Your task to perform on an android device: check google app version Image 0: 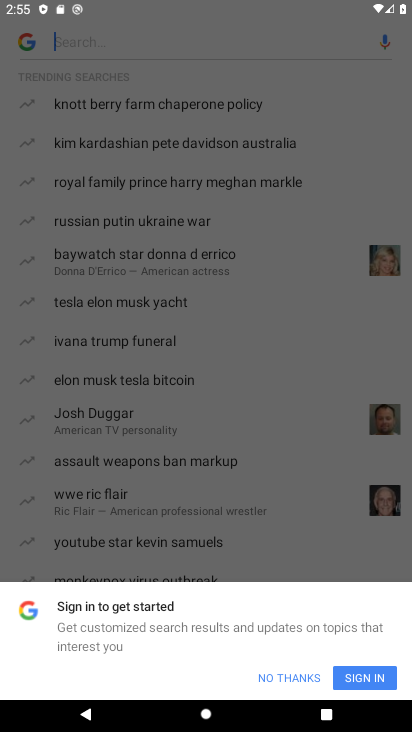
Step 0: press home button
Your task to perform on an android device: check google app version Image 1: 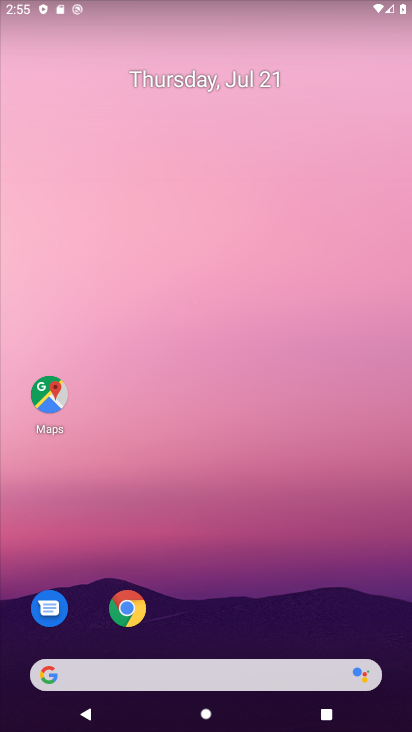
Step 1: drag from (355, 612) to (287, 93)
Your task to perform on an android device: check google app version Image 2: 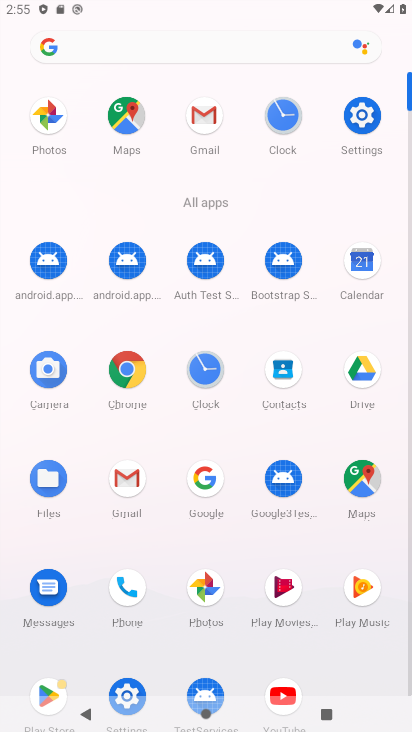
Step 2: click (121, 357)
Your task to perform on an android device: check google app version Image 3: 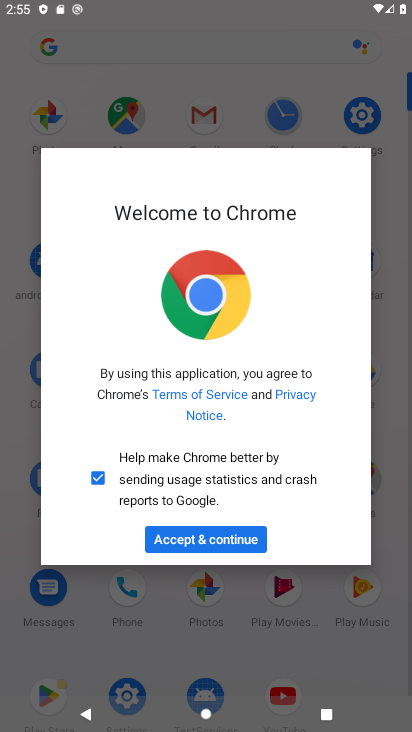
Step 3: click (221, 534)
Your task to perform on an android device: check google app version Image 4: 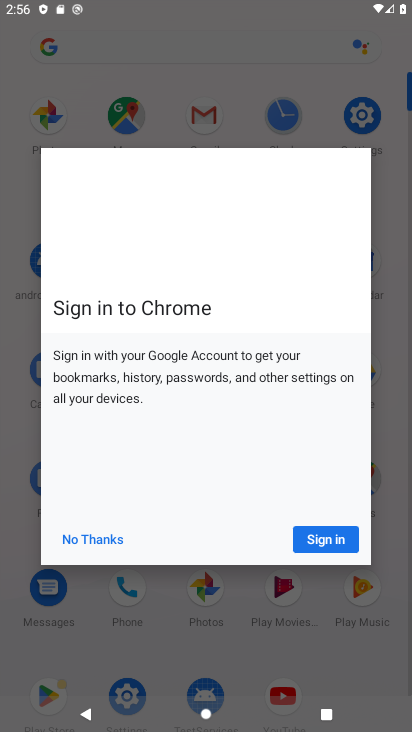
Step 4: click (309, 527)
Your task to perform on an android device: check google app version Image 5: 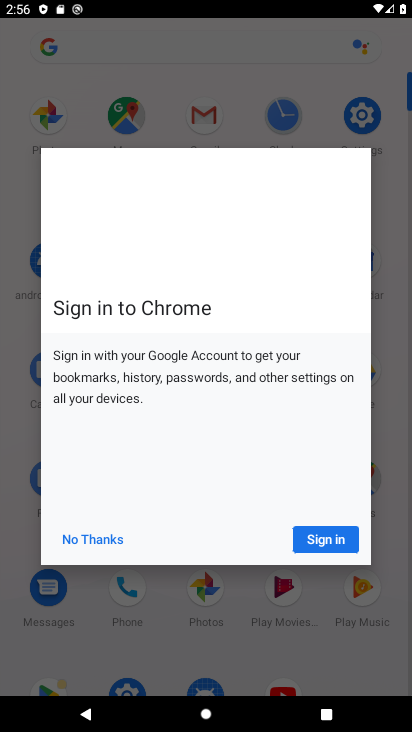
Step 5: click (308, 527)
Your task to perform on an android device: check google app version Image 6: 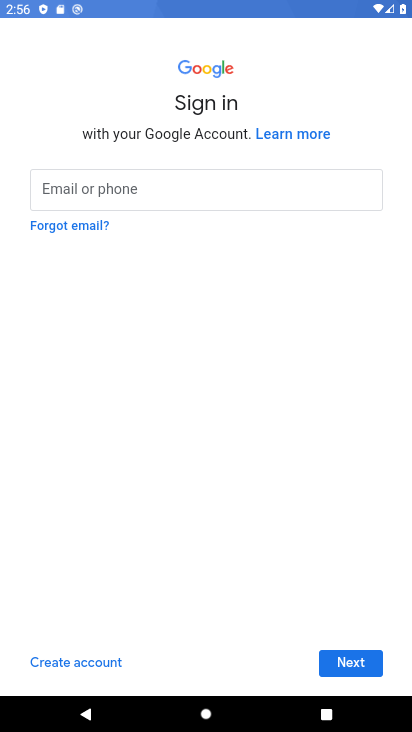
Step 6: task complete